Your task to perform on an android device: change the upload size in google photos Image 0: 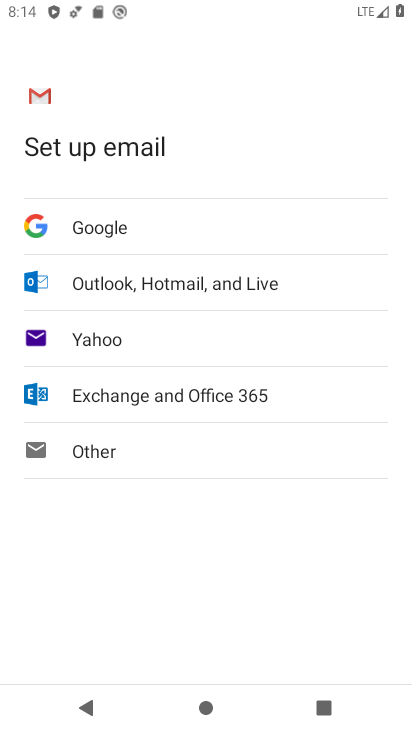
Step 0: press home button
Your task to perform on an android device: change the upload size in google photos Image 1: 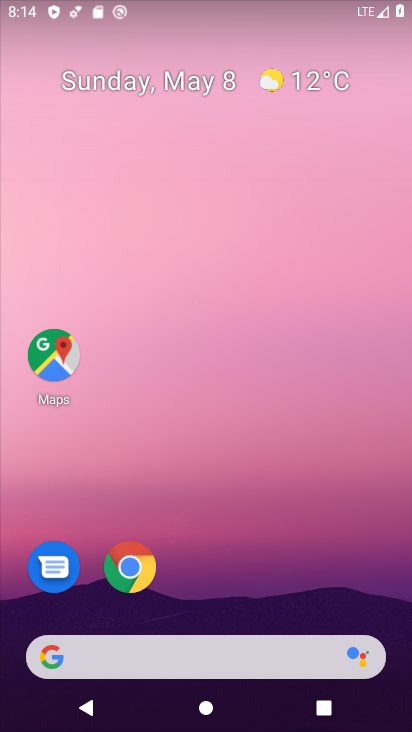
Step 1: drag from (204, 655) to (202, 32)
Your task to perform on an android device: change the upload size in google photos Image 2: 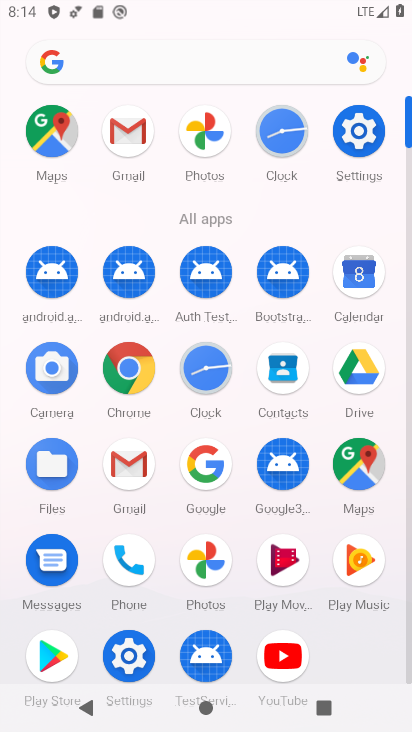
Step 2: click (215, 570)
Your task to perform on an android device: change the upload size in google photos Image 3: 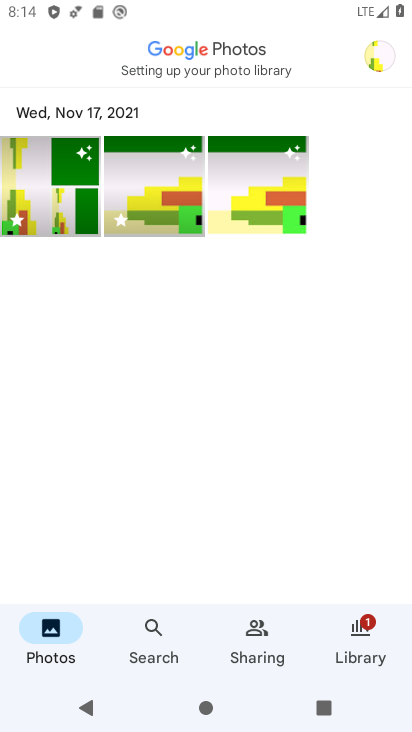
Step 3: click (383, 55)
Your task to perform on an android device: change the upload size in google photos Image 4: 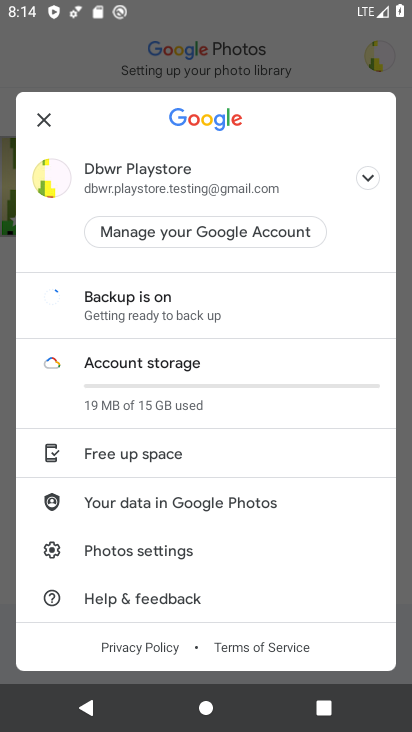
Step 4: click (170, 555)
Your task to perform on an android device: change the upload size in google photos Image 5: 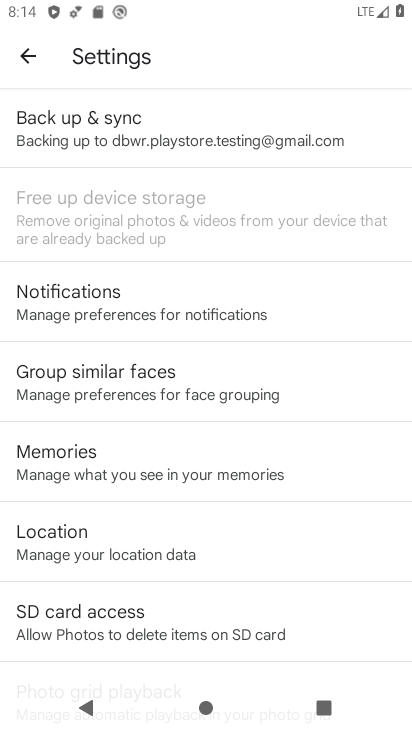
Step 5: click (189, 151)
Your task to perform on an android device: change the upload size in google photos Image 6: 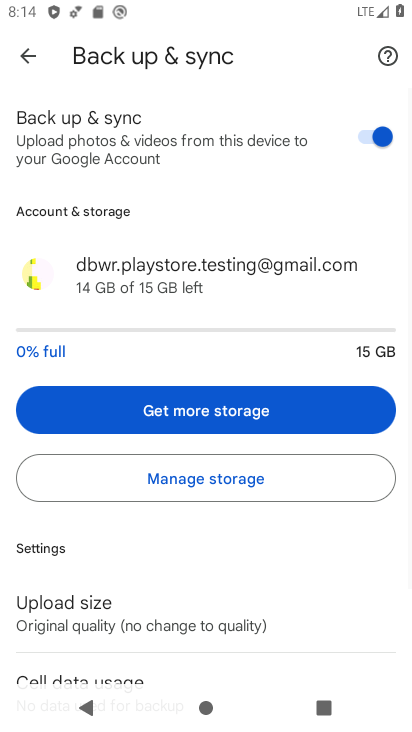
Step 6: click (233, 613)
Your task to perform on an android device: change the upload size in google photos Image 7: 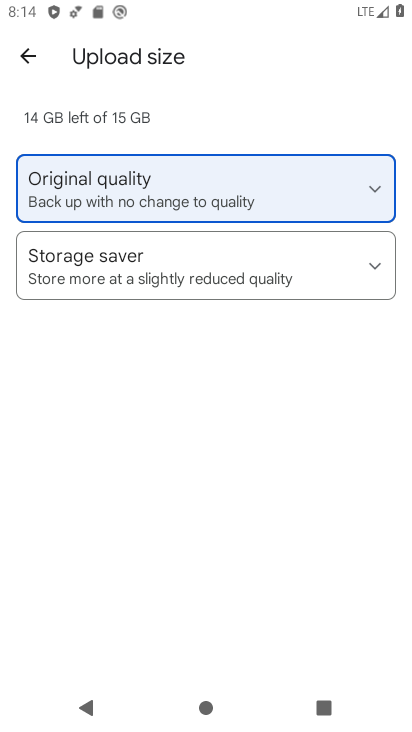
Step 7: click (327, 262)
Your task to perform on an android device: change the upload size in google photos Image 8: 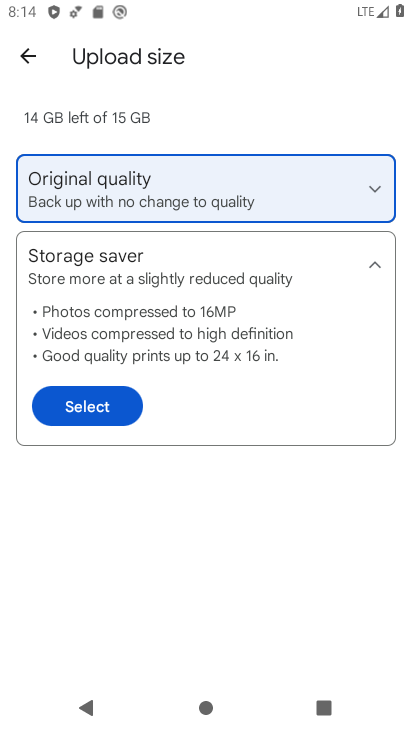
Step 8: click (88, 413)
Your task to perform on an android device: change the upload size in google photos Image 9: 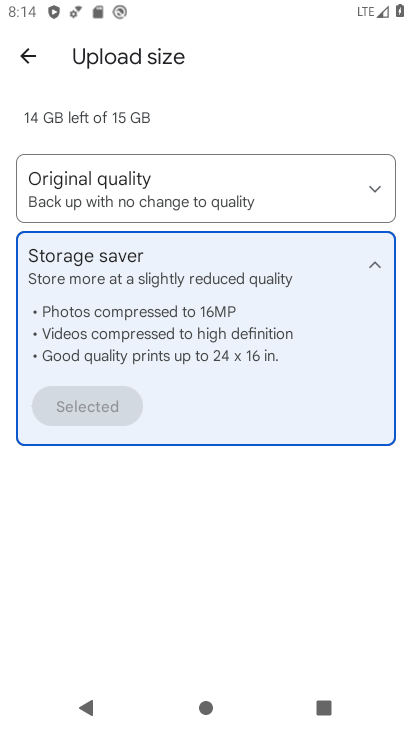
Step 9: task complete